Your task to perform on an android device: Go to Android settings Image 0: 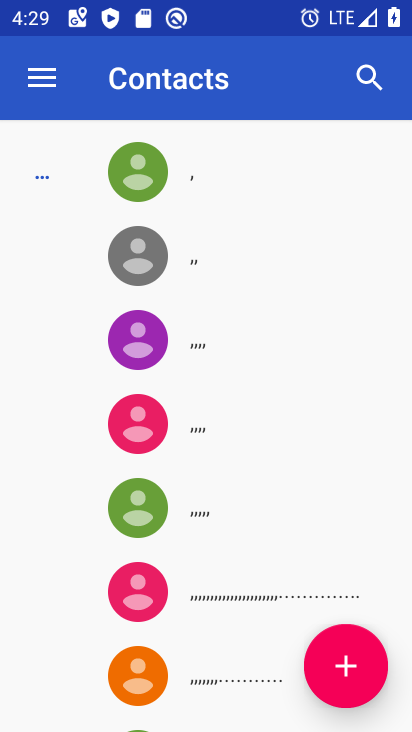
Step 0: press home button
Your task to perform on an android device: Go to Android settings Image 1: 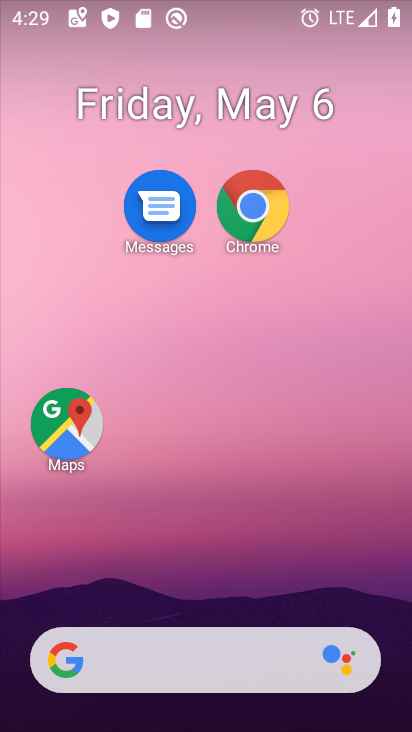
Step 1: drag from (212, 633) to (195, 251)
Your task to perform on an android device: Go to Android settings Image 2: 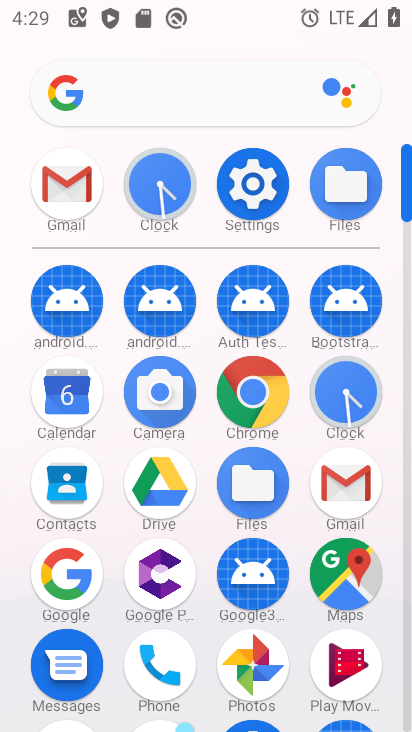
Step 2: click (241, 189)
Your task to perform on an android device: Go to Android settings Image 3: 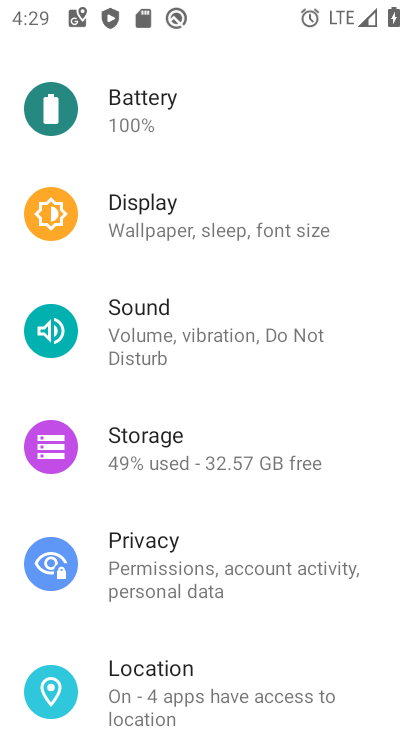
Step 3: task complete